Your task to perform on an android device: turn off airplane mode Image 0: 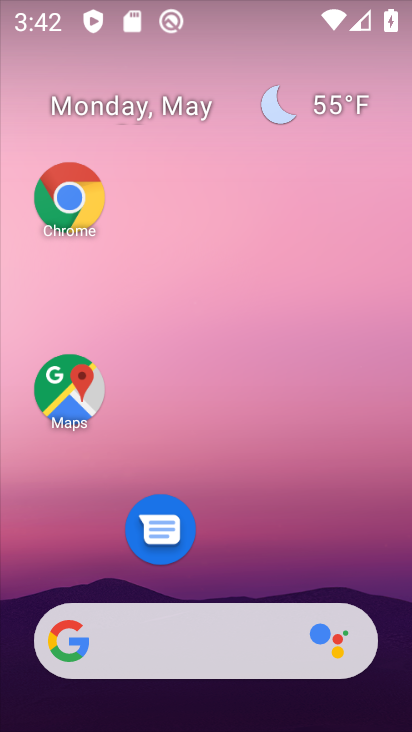
Step 0: drag from (257, 602) to (261, 136)
Your task to perform on an android device: turn off airplane mode Image 1: 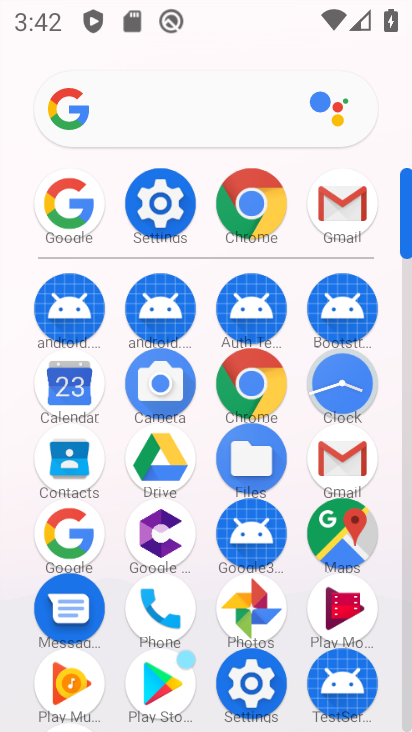
Step 1: click (177, 226)
Your task to perform on an android device: turn off airplane mode Image 2: 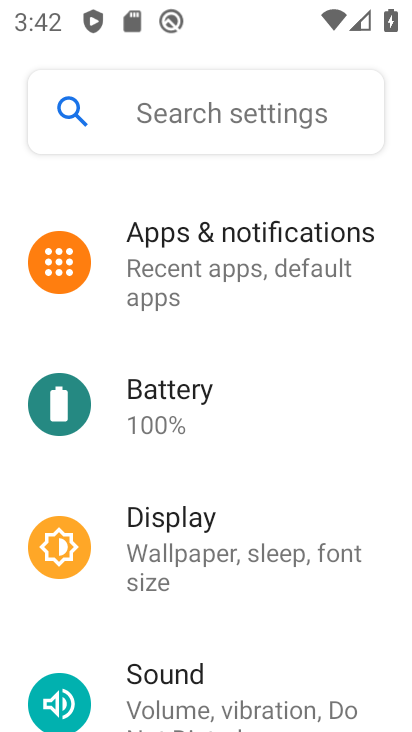
Step 2: drag from (185, 258) to (189, 506)
Your task to perform on an android device: turn off airplane mode Image 3: 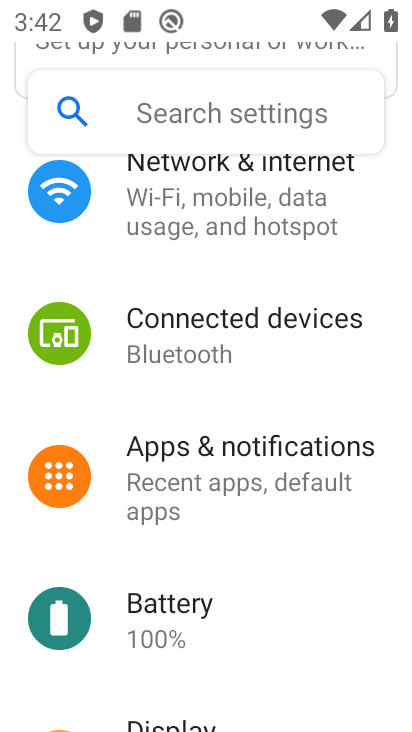
Step 3: drag from (257, 297) to (257, 720)
Your task to perform on an android device: turn off airplane mode Image 4: 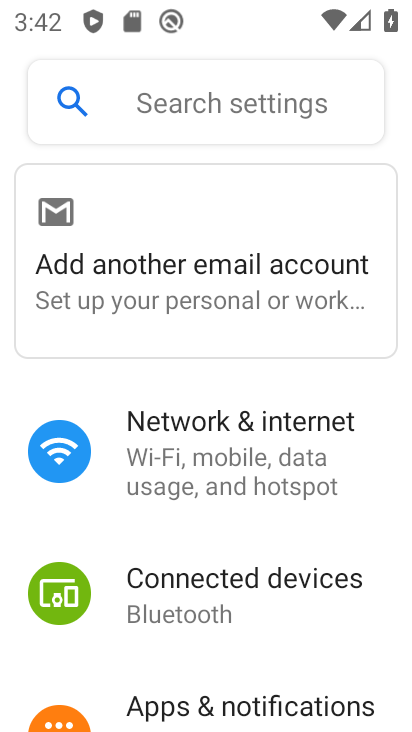
Step 4: click (270, 481)
Your task to perform on an android device: turn off airplane mode Image 5: 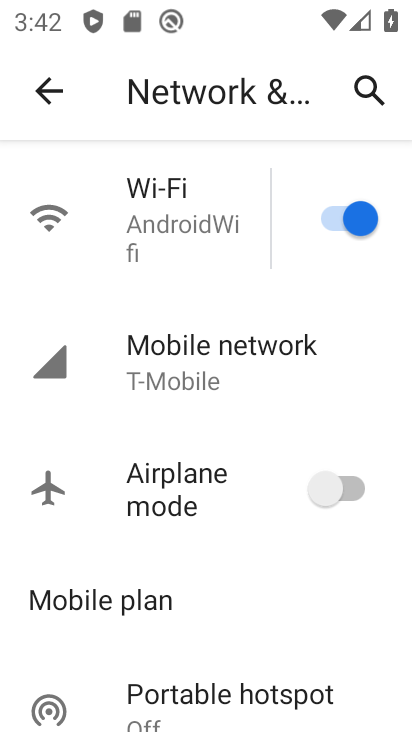
Step 5: task complete